Your task to perform on an android device: Find coffee shops on Maps Image 0: 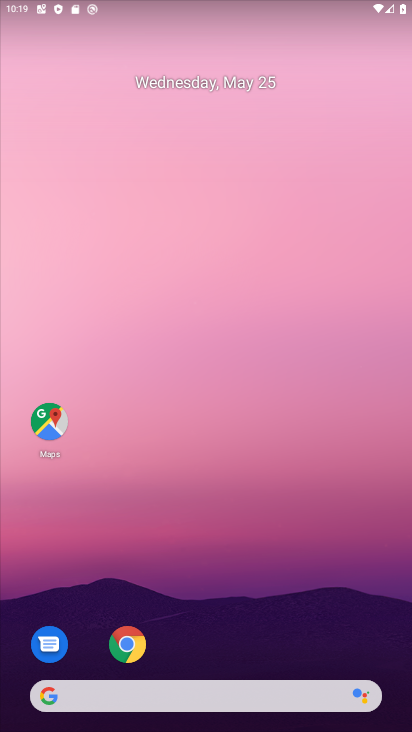
Step 0: click (46, 418)
Your task to perform on an android device: Find coffee shops on Maps Image 1: 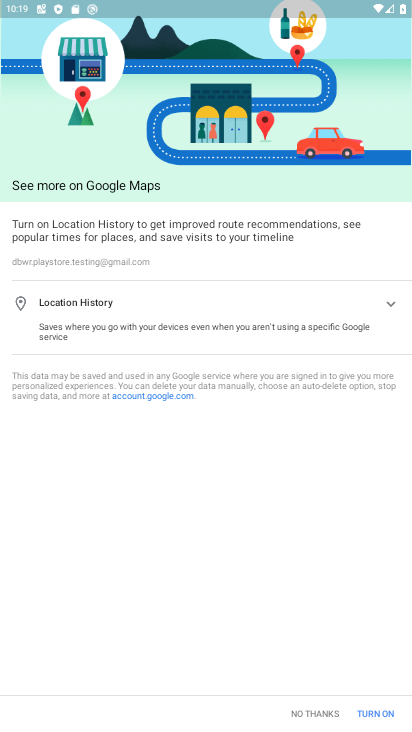
Step 1: click (372, 717)
Your task to perform on an android device: Find coffee shops on Maps Image 2: 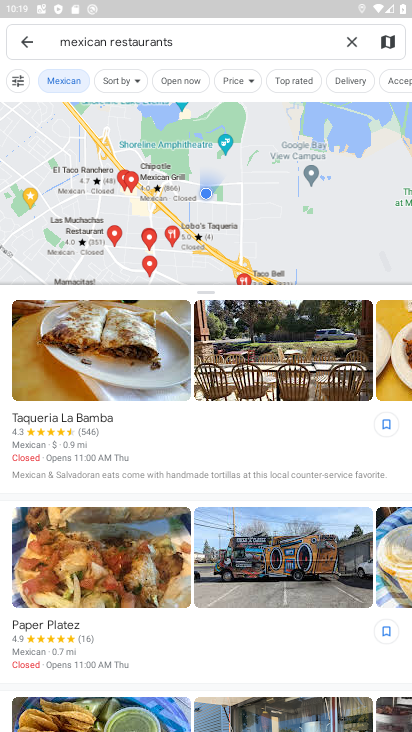
Step 2: click (349, 42)
Your task to perform on an android device: Find coffee shops on Maps Image 3: 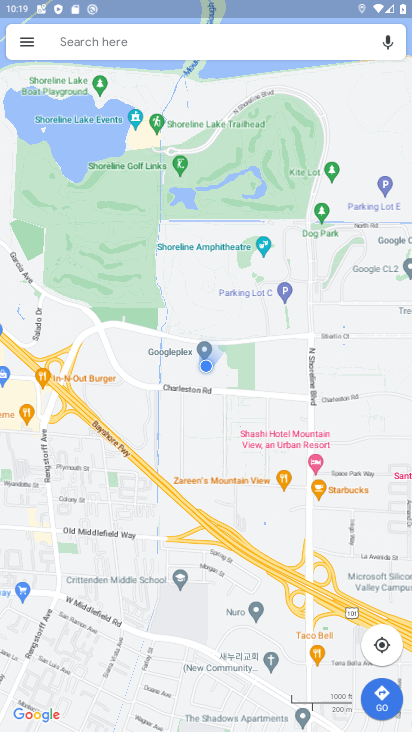
Step 3: click (166, 48)
Your task to perform on an android device: Find coffee shops on Maps Image 4: 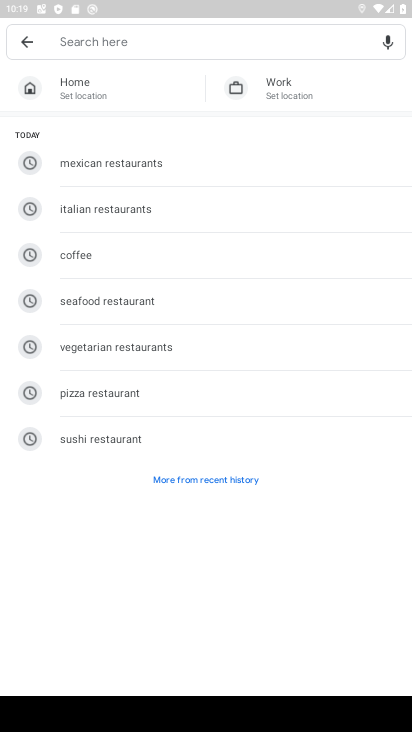
Step 4: click (76, 253)
Your task to perform on an android device: Find coffee shops on Maps Image 5: 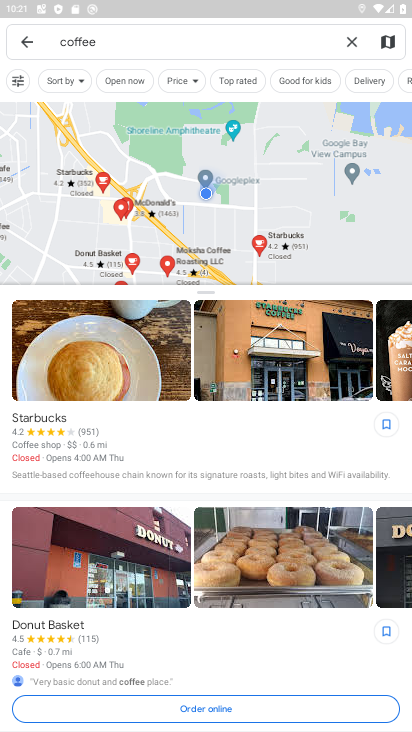
Step 5: task complete